Your task to perform on an android device: Open settings Image 0: 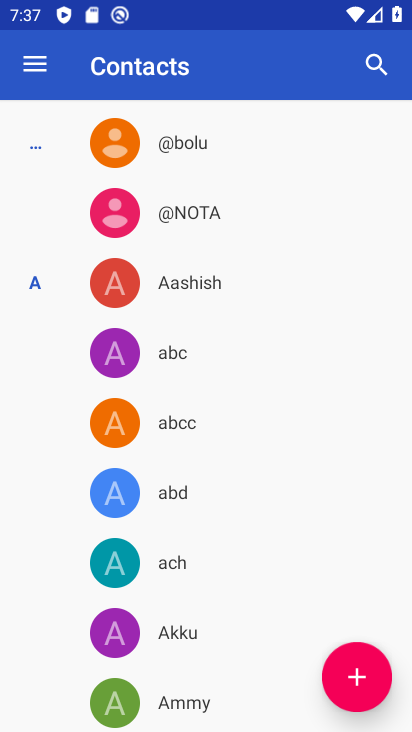
Step 0: drag from (242, 8) to (189, 595)
Your task to perform on an android device: Open settings Image 1: 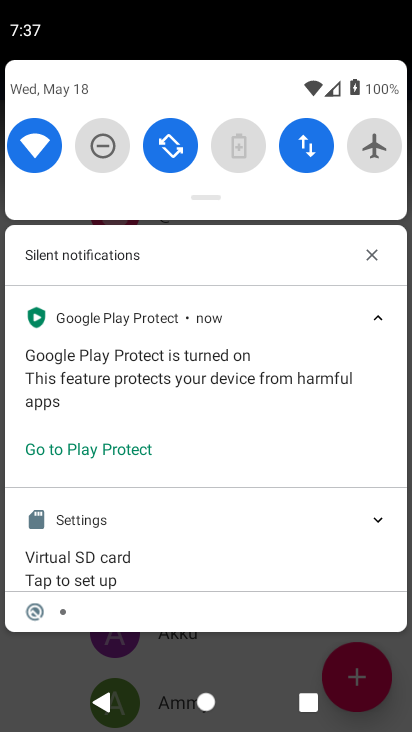
Step 1: drag from (189, 79) to (182, 640)
Your task to perform on an android device: Open settings Image 2: 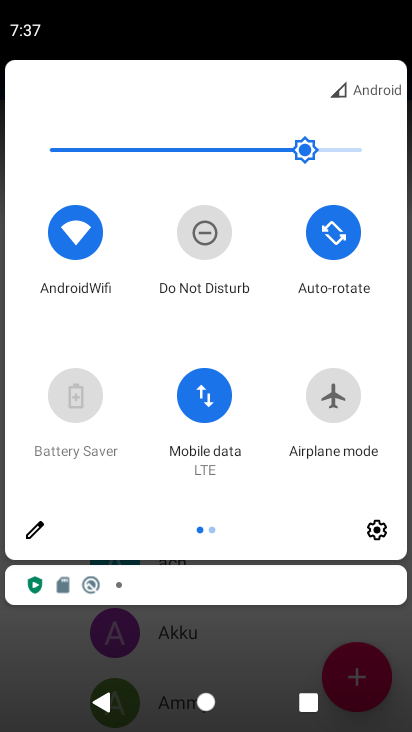
Step 2: click (380, 527)
Your task to perform on an android device: Open settings Image 3: 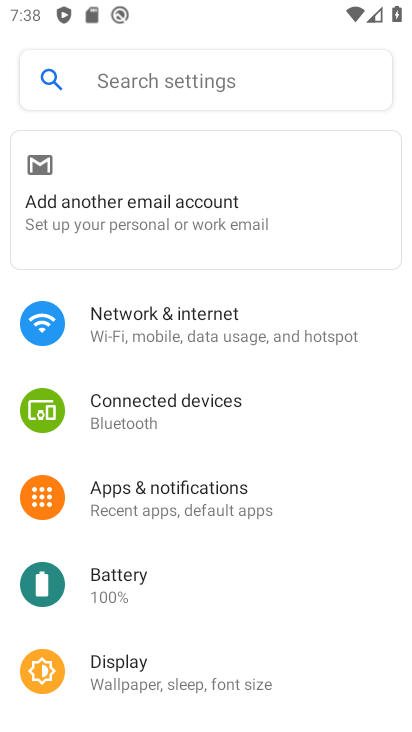
Step 3: task complete